Your task to perform on an android device: change the clock display to show seconds Image 0: 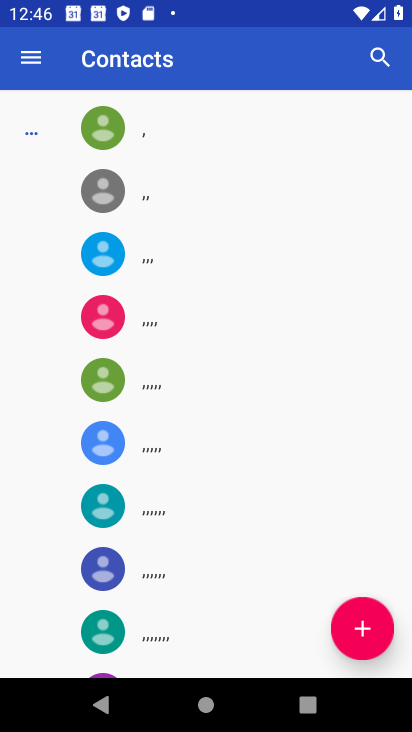
Step 0: press home button
Your task to perform on an android device: change the clock display to show seconds Image 1: 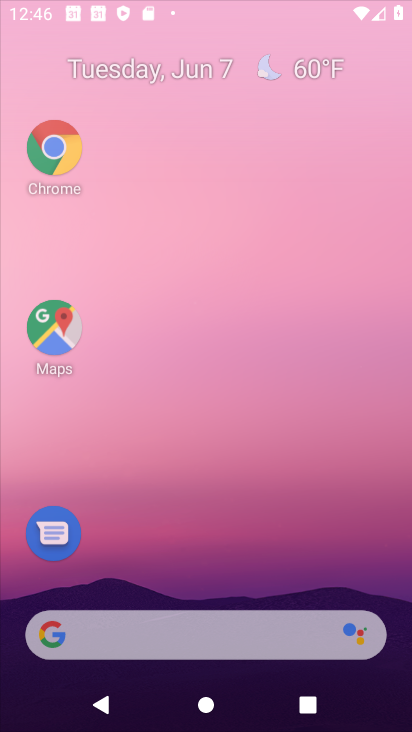
Step 1: drag from (186, 599) to (283, 187)
Your task to perform on an android device: change the clock display to show seconds Image 2: 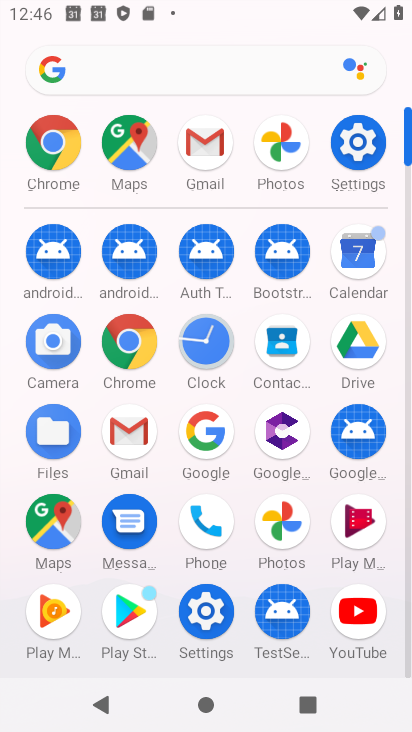
Step 2: click (193, 324)
Your task to perform on an android device: change the clock display to show seconds Image 3: 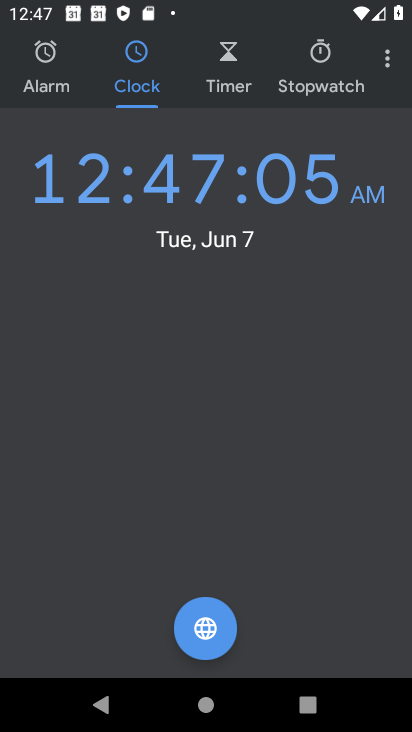
Step 3: click (387, 54)
Your task to perform on an android device: change the clock display to show seconds Image 4: 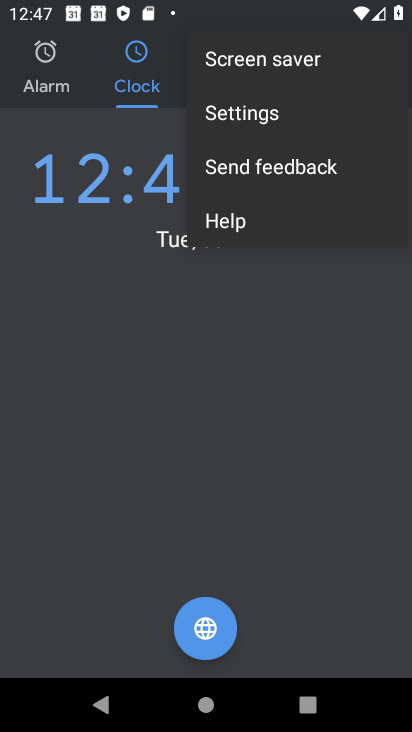
Step 4: click (249, 117)
Your task to perform on an android device: change the clock display to show seconds Image 5: 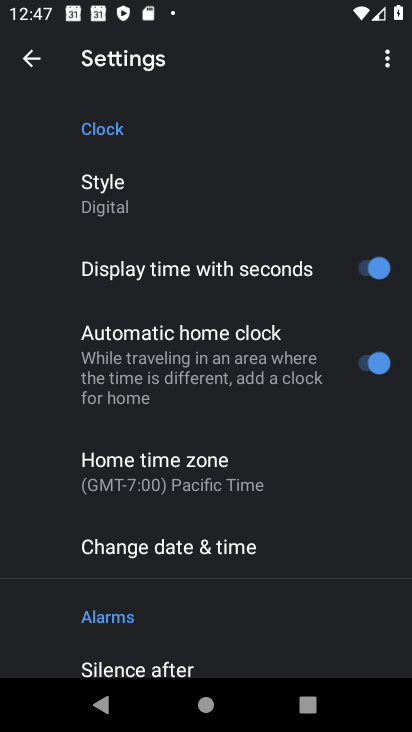
Step 5: click (365, 266)
Your task to perform on an android device: change the clock display to show seconds Image 6: 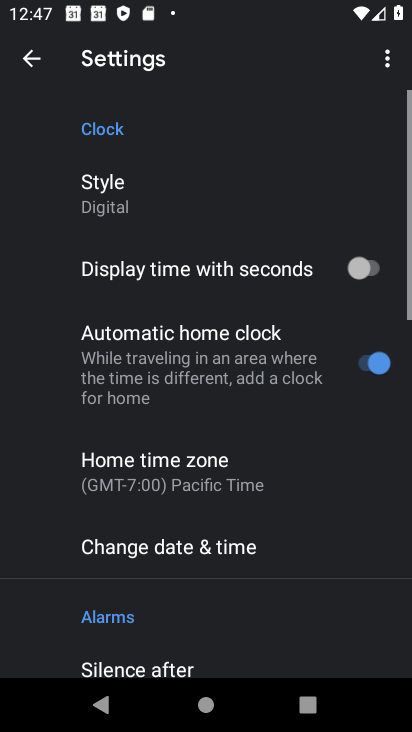
Step 6: task complete